Your task to perform on an android device: toggle wifi Image 0: 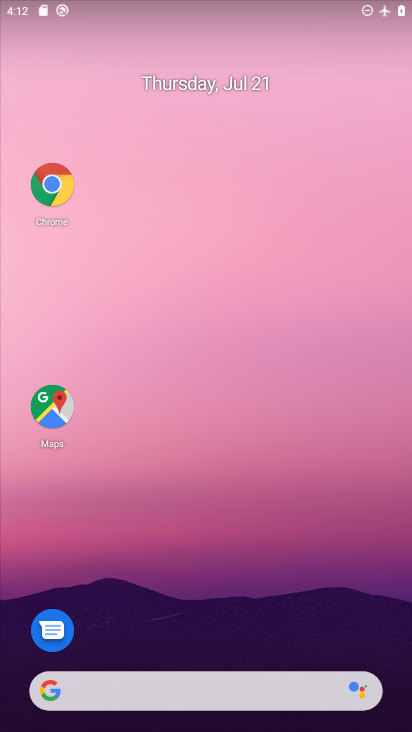
Step 0: drag from (212, 652) to (93, 0)
Your task to perform on an android device: toggle wifi Image 1: 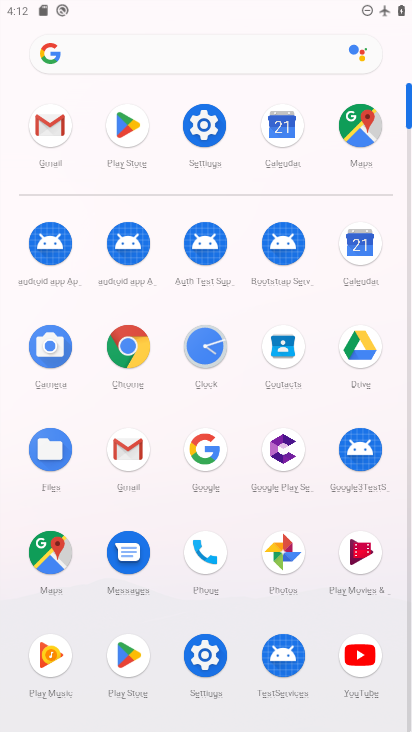
Step 1: click (186, 127)
Your task to perform on an android device: toggle wifi Image 2: 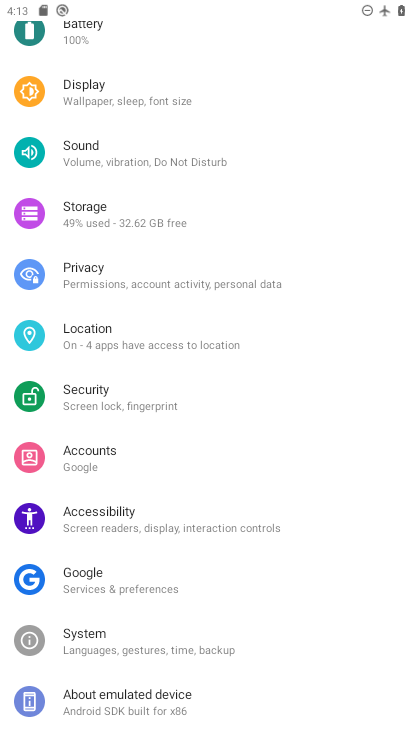
Step 2: drag from (80, 117) to (109, 429)
Your task to perform on an android device: toggle wifi Image 3: 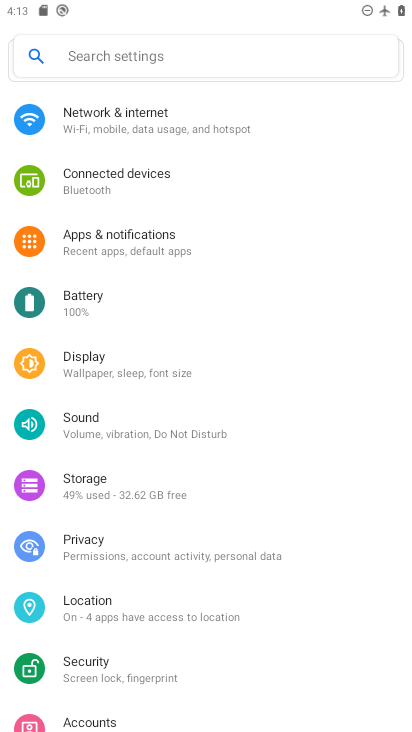
Step 3: click (89, 114)
Your task to perform on an android device: toggle wifi Image 4: 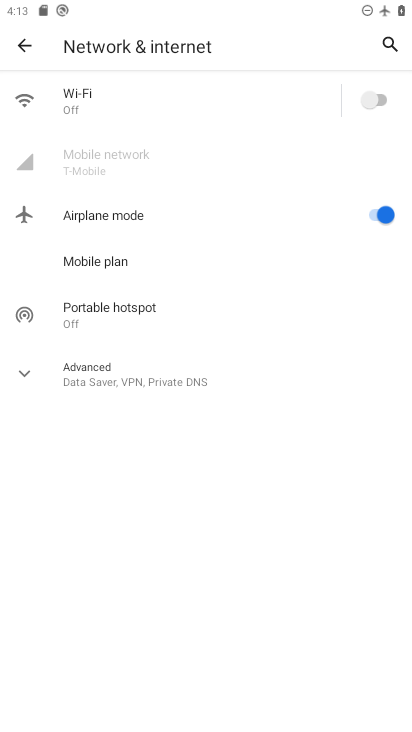
Step 4: click (138, 108)
Your task to perform on an android device: toggle wifi Image 5: 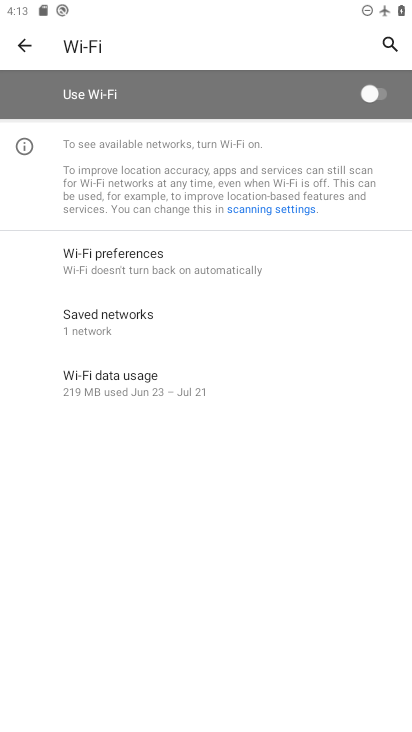
Step 5: click (362, 100)
Your task to perform on an android device: toggle wifi Image 6: 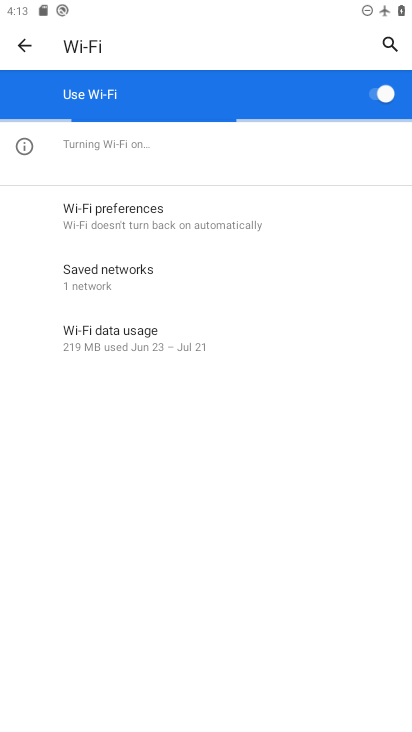
Step 6: task complete